Your task to perform on an android device: Set the phone to "Do not disturb". Image 0: 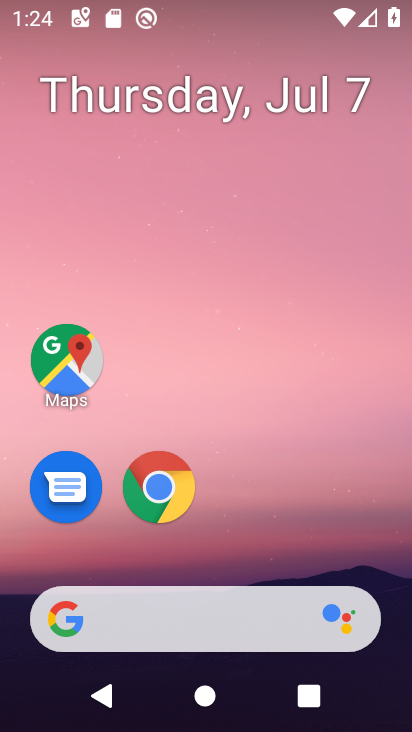
Step 0: drag from (337, 545) to (341, 107)
Your task to perform on an android device: Set the phone to "Do not disturb". Image 1: 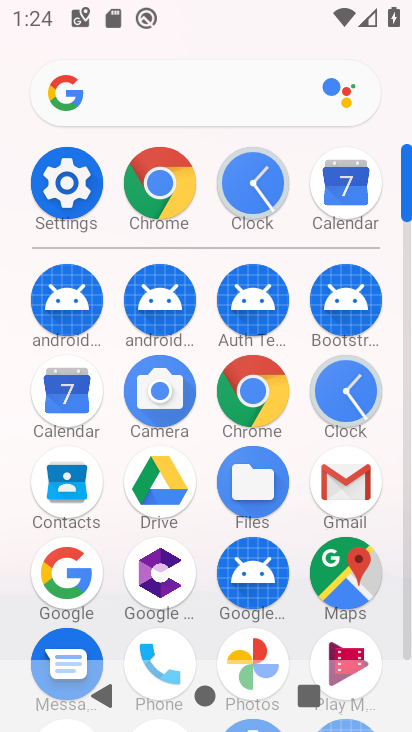
Step 1: click (82, 196)
Your task to perform on an android device: Set the phone to "Do not disturb". Image 2: 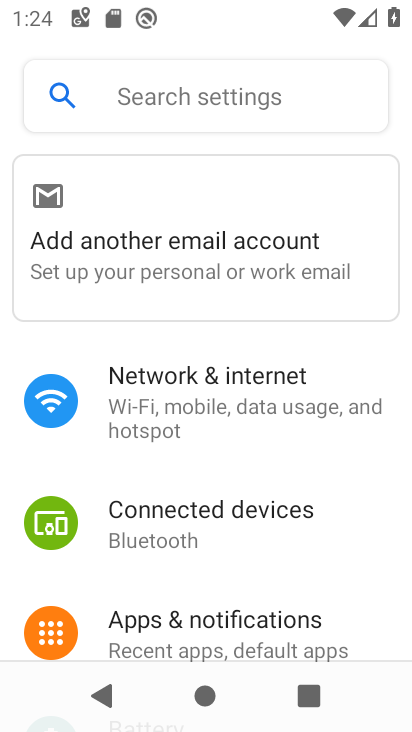
Step 2: drag from (348, 565) to (356, 334)
Your task to perform on an android device: Set the phone to "Do not disturb". Image 3: 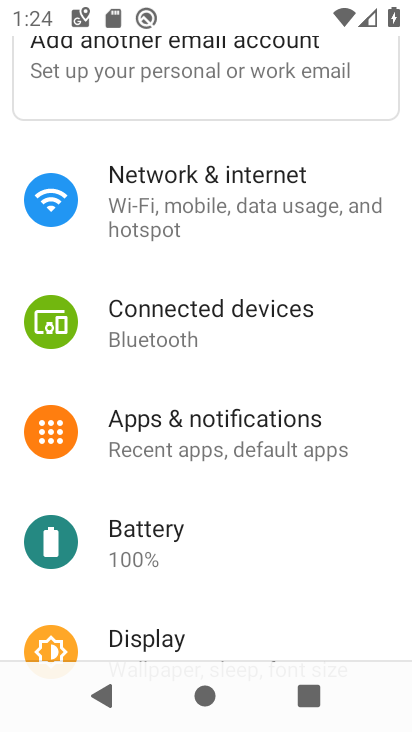
Step 3: drag from (351, 605) to (351, 415)
Your task to perform on an android device: Set the phone to "Do not disturb". Image 4: 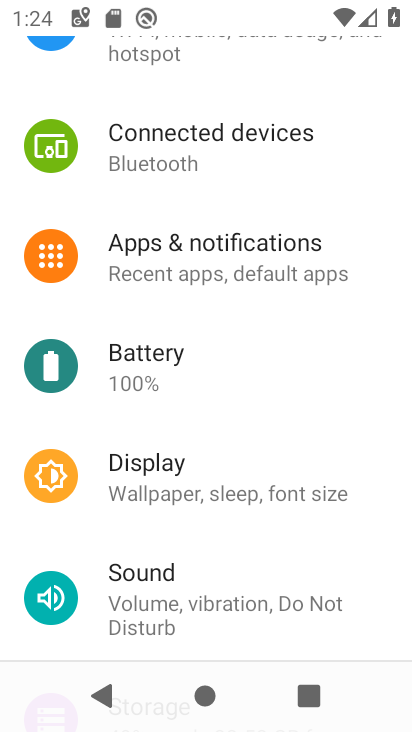
Step 4: drag from (364, 534) to (370, 361)
Your task to perform on an android device: Set the phone to "Do not disturb". Image 5: 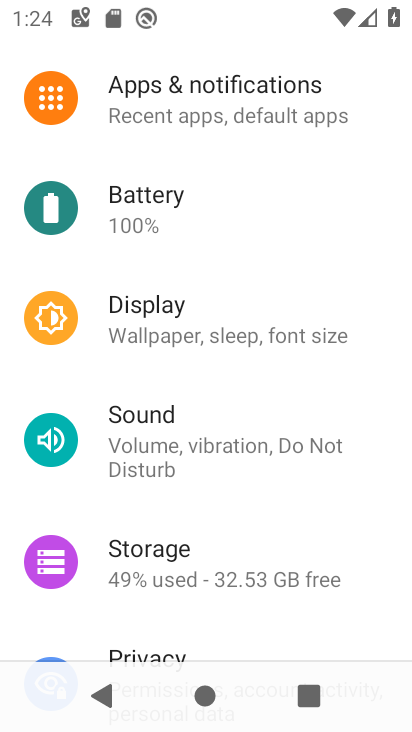
Step 5: click (237, 424)
Your task to perform on an android device: Set the phone to "Do not disturb". Image 6: 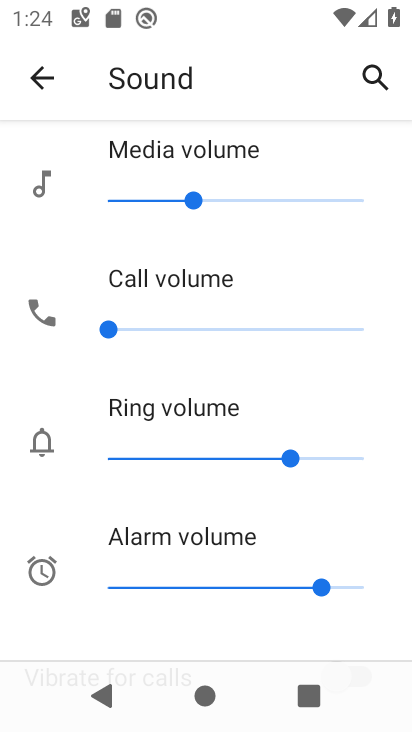
Step 6: drag from (211, 608) to (255, 223)
Your task to perform on an android device: Set the phone to "Do not disturb". Image 7: 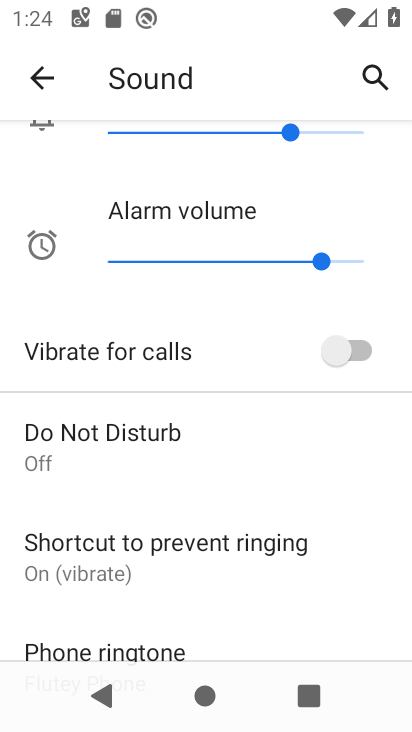
Step 7: click (149, 459)
Your task to perform on an android device: Set the phone to "Do not disturb". Image 8: 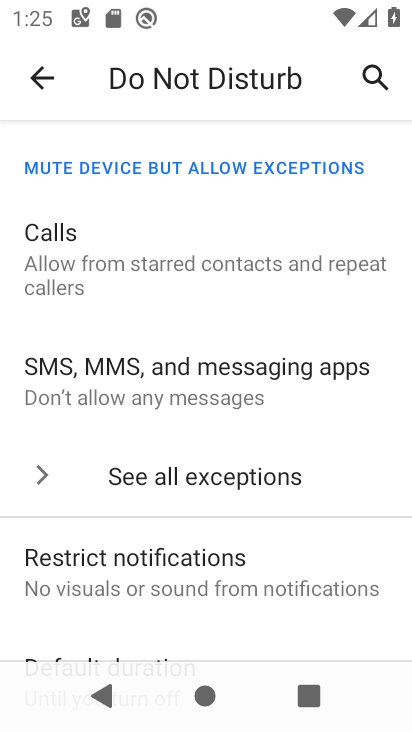
Step 8: task complete